Your task to perform on an android device: toggle pop-ups in chrome Image 0: 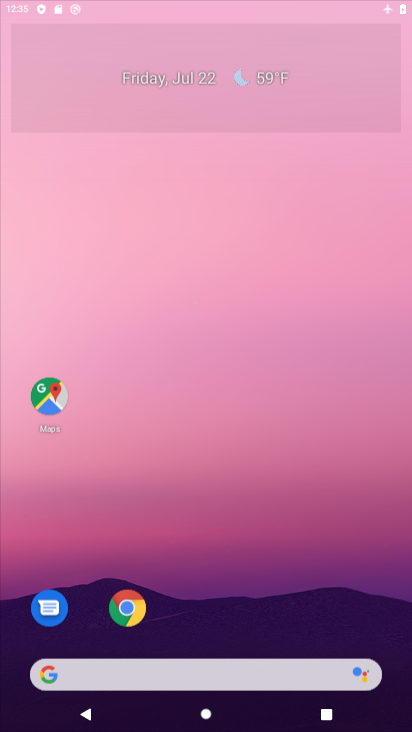
Step 0: click (331, 257)
Your task to perform on an android device: toggle pop-ups in chrome Image 1: 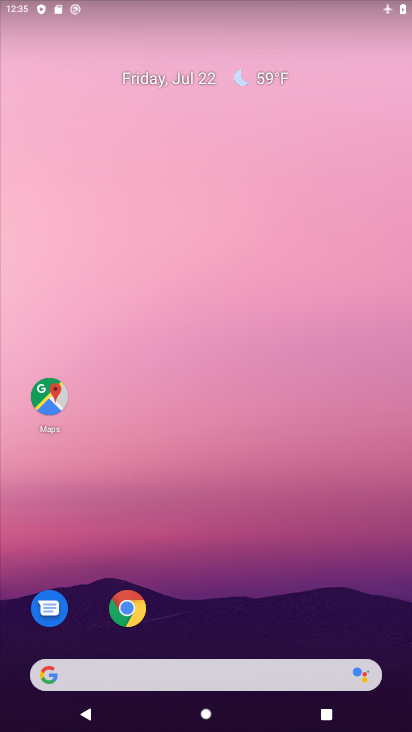
Step 1: click (138, 612)
Your task to perform on an android device: toggle pop-ups in chrome Image 2: 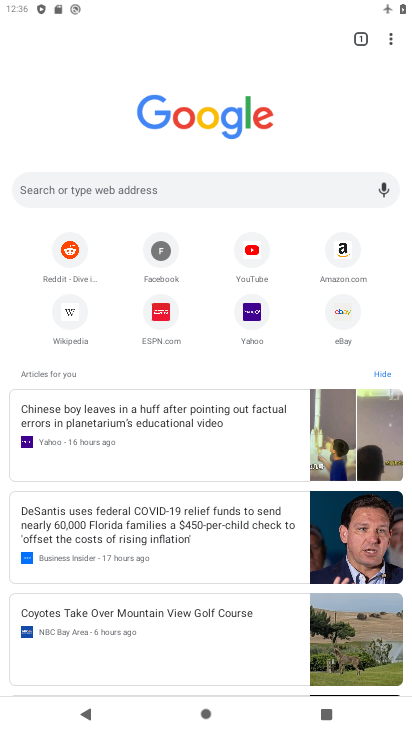
Step 2: click (392, 41)
Your task to perform on an android device: toggle pop-ups in chrome Image 3: 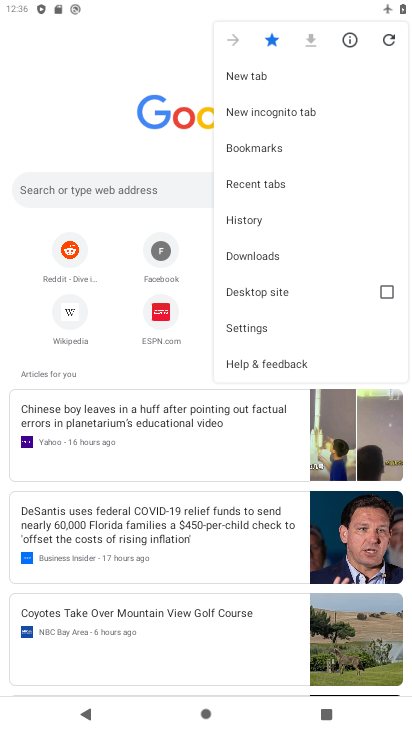
Step 3: click (244, 326)
Your task to perform on an android device: toggle pop-ups in chrome Image 4: 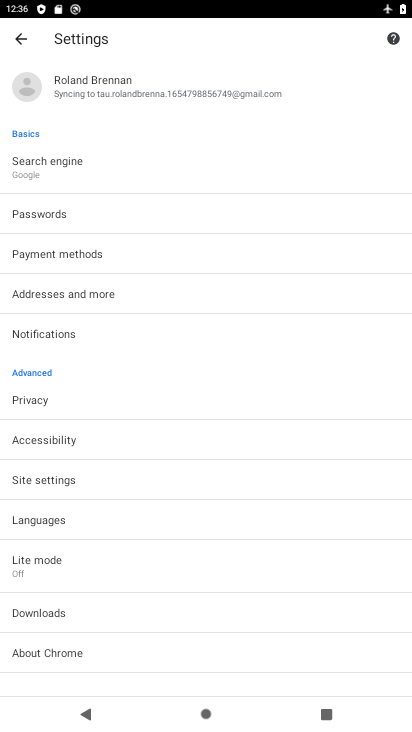
Step 4: click (48, 487)
Your task to perform on an android device: toggle pop-ups in chrome Image 5: 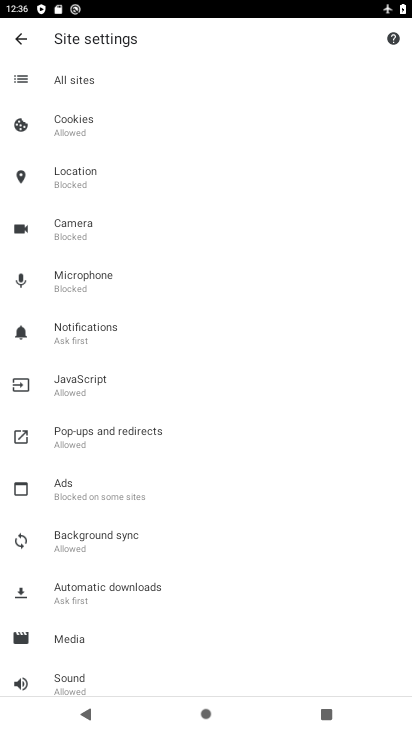
Step 5: click (100, 437)
Your task to perform on an android device: toggle pop-ups in chrome Image 6: 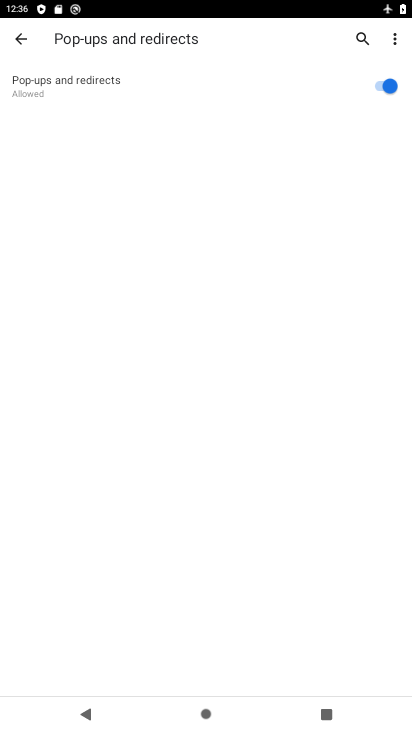
Step 6: click (355, 87)
Your task to perform on an android device: toggle pop-ups in chrome Image 7: 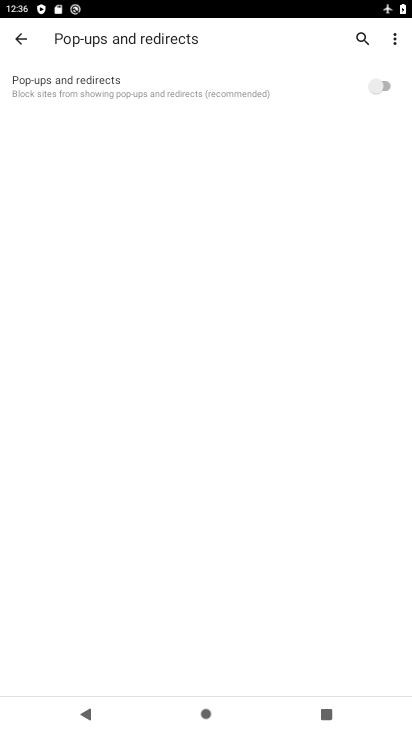
Step 7: task complete